Your task to perform on an android device: install app "ColorNote Notepad Notes" Image 0: 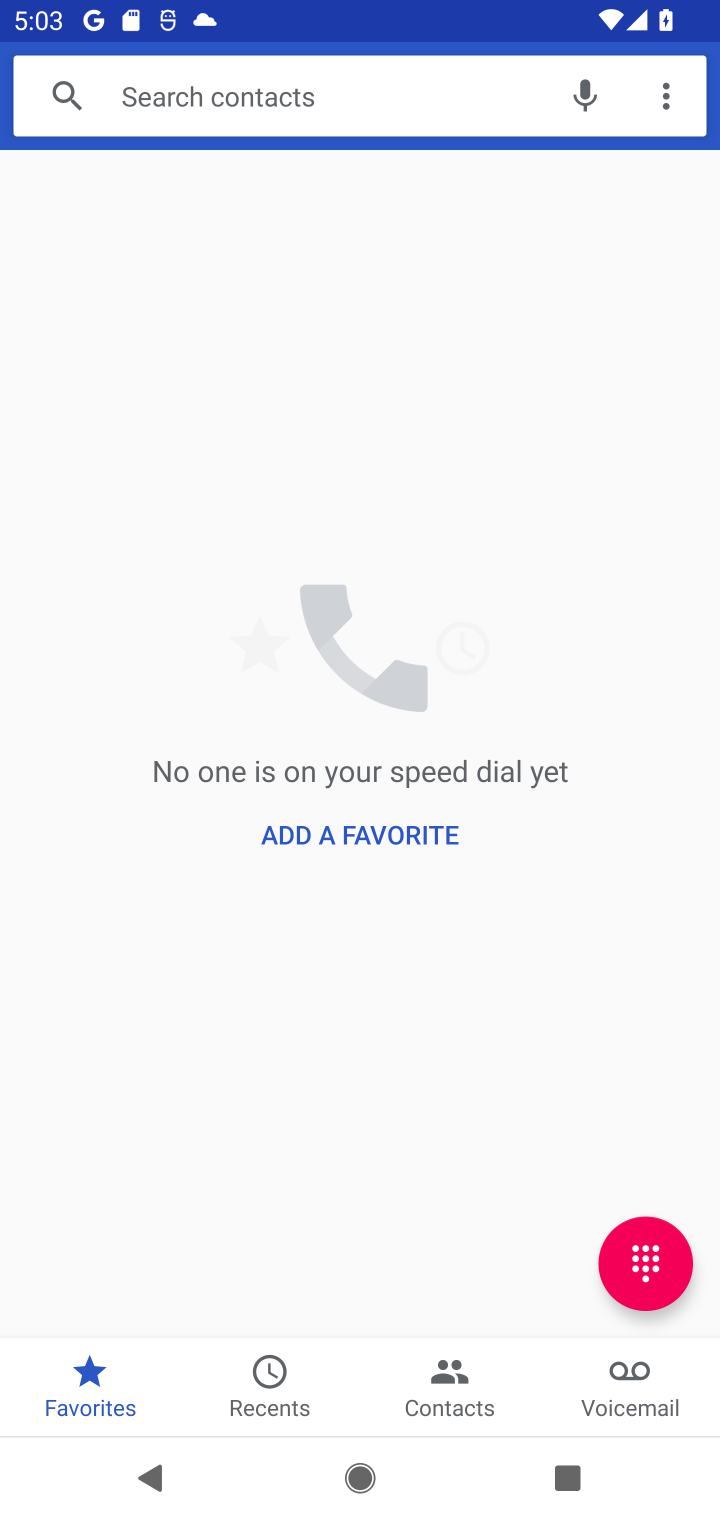
Step 0: press home button
Your task to perform on an android device: install app "ColorNote Notepad Notes" Image 1: 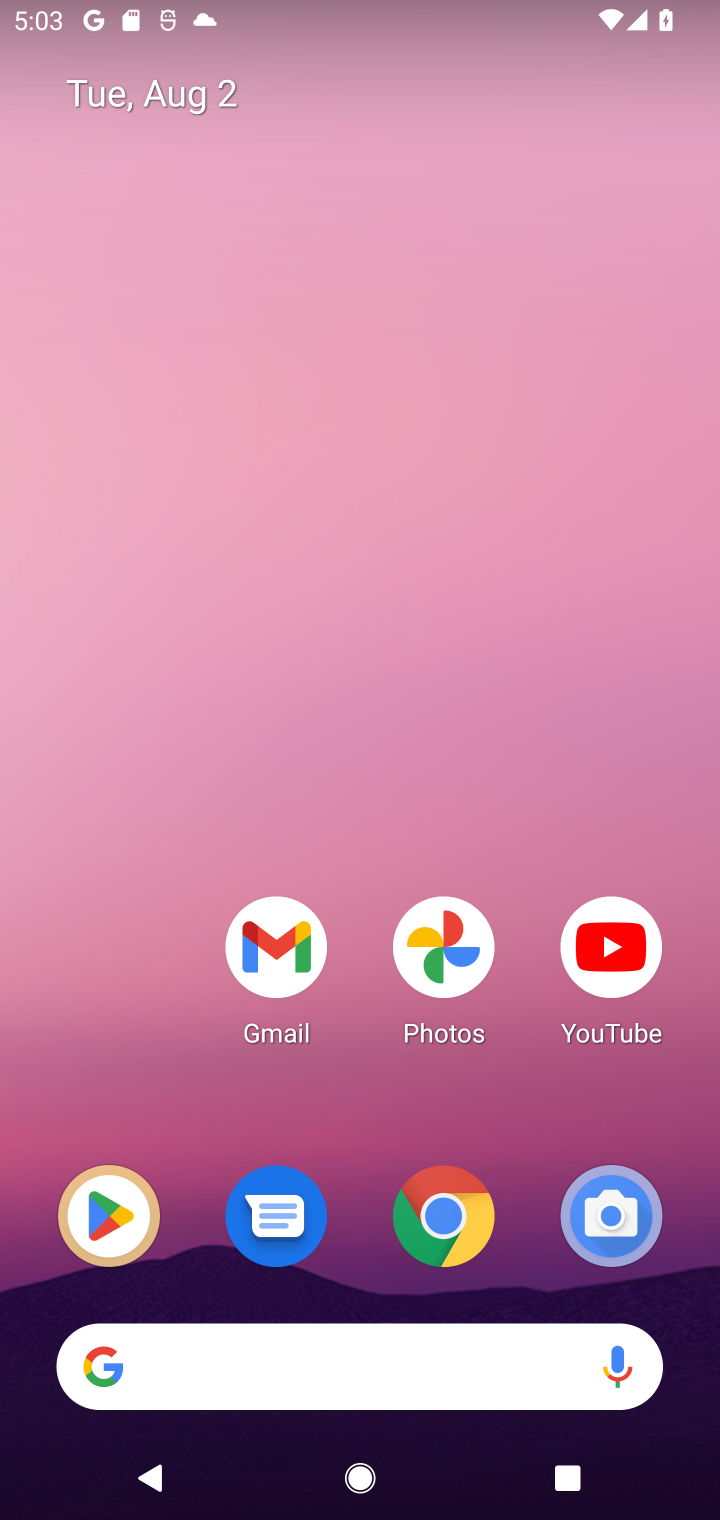
Step 1: click (146, 1227)
Your task to perform on an android device: install app "ColorNote Notepad Notes" Image 2: 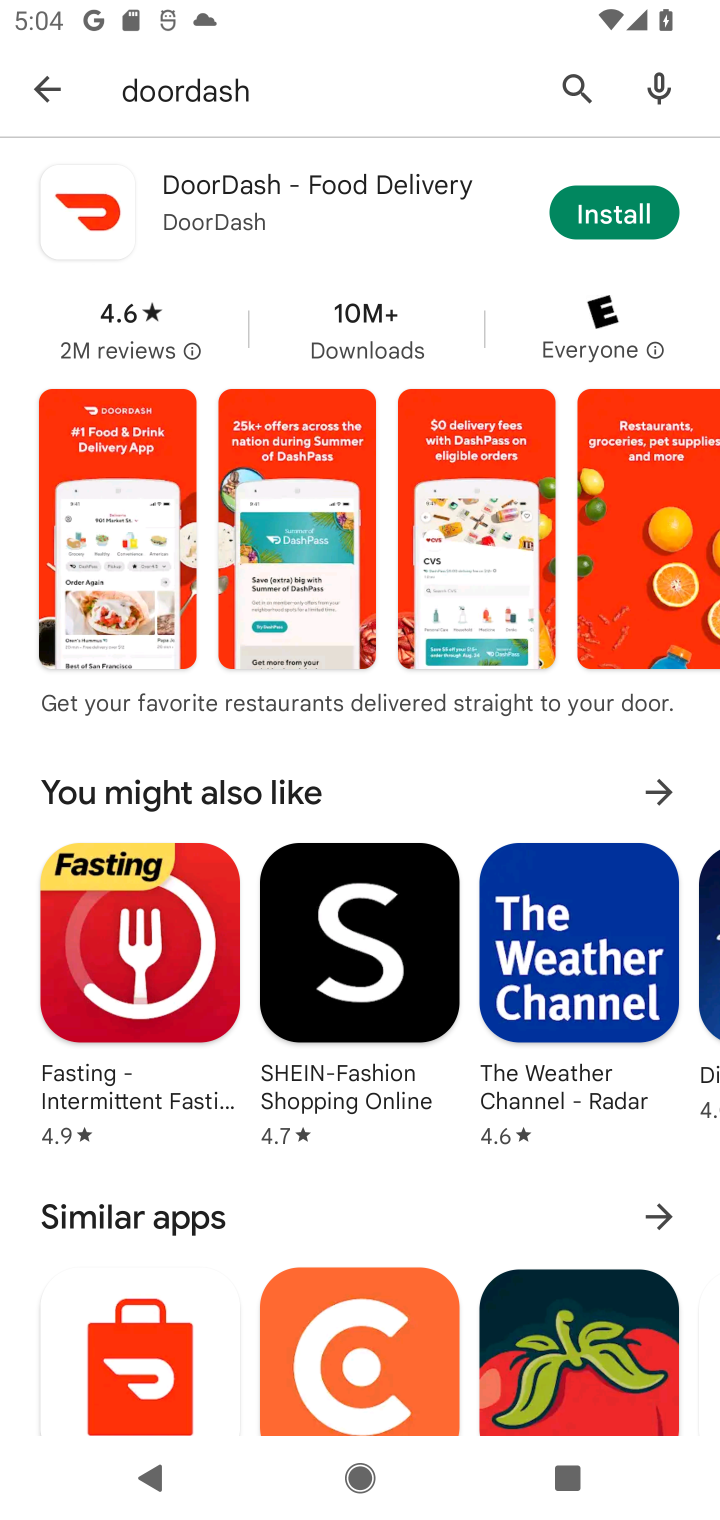
Step 2: click (569, 88)
Your task to perform on an android device: install app "ColorNote Notepad Notes" Image 3: 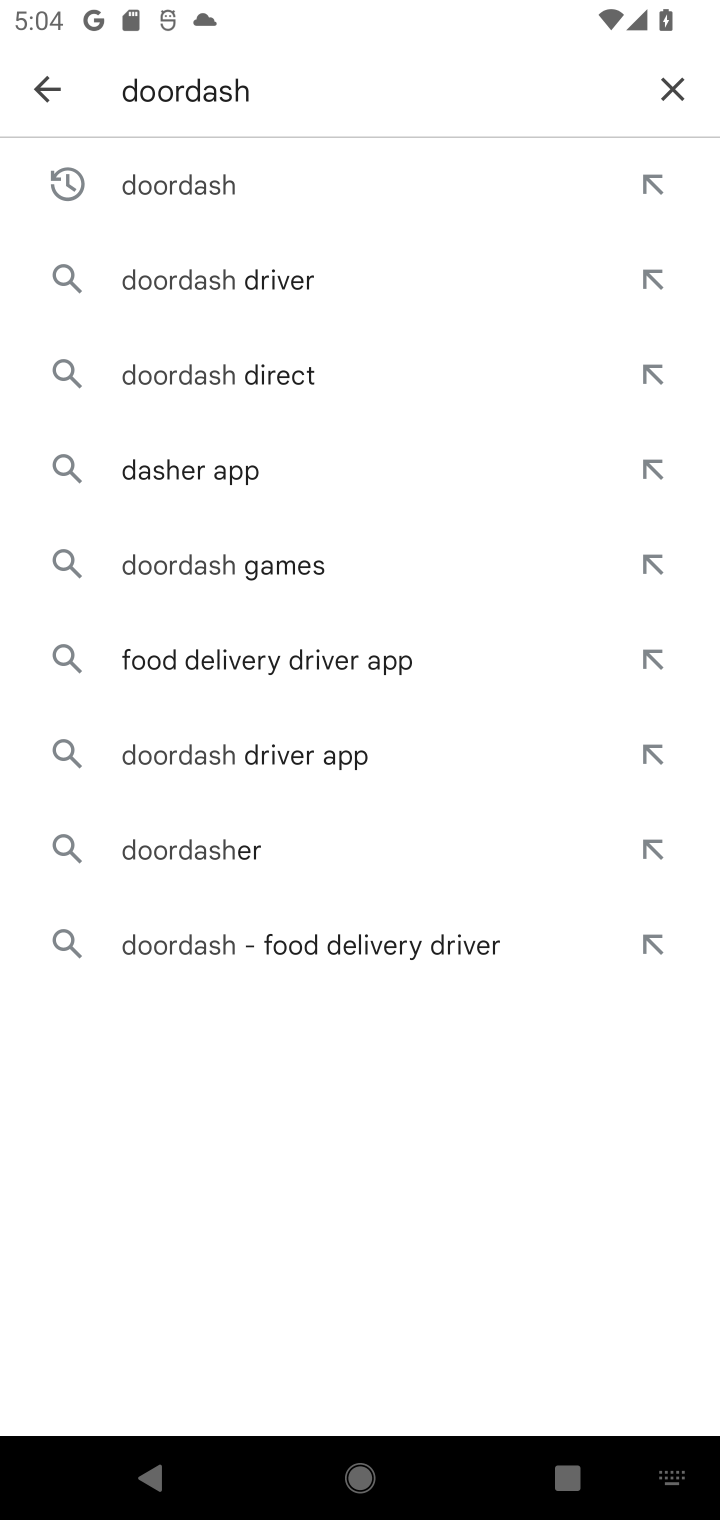
Step 3: click (689, 88)
Your task to perform on an android device: install app "ColorNote Notepad Notes" Image 4: 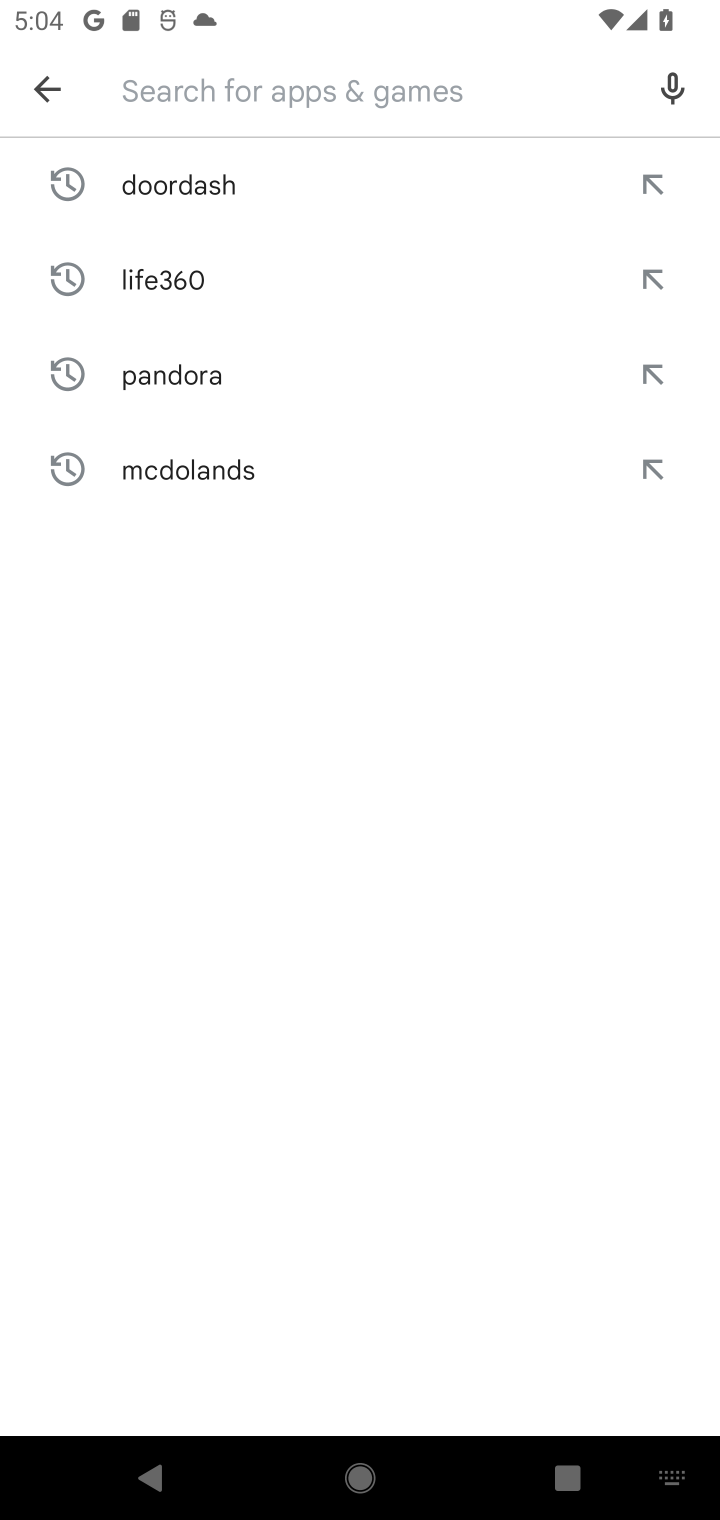
Step 4: type "colonote"
Your task to perform on an android device: install app "ColorNote Notepad Notes" Image 5: 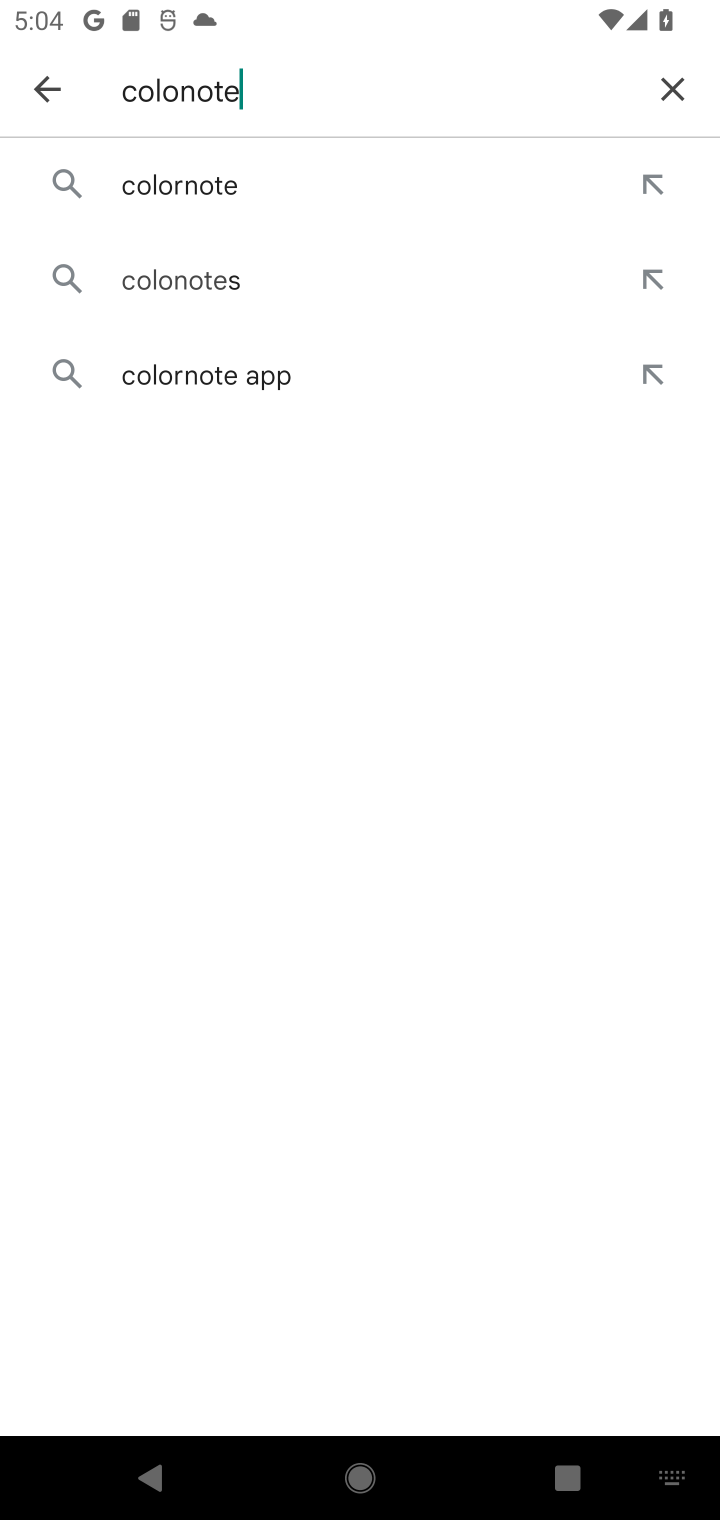
Step 5: click (364, 237)
Your task to perform on an android device: install app "ColorNote Notepad Notes" Image 6: 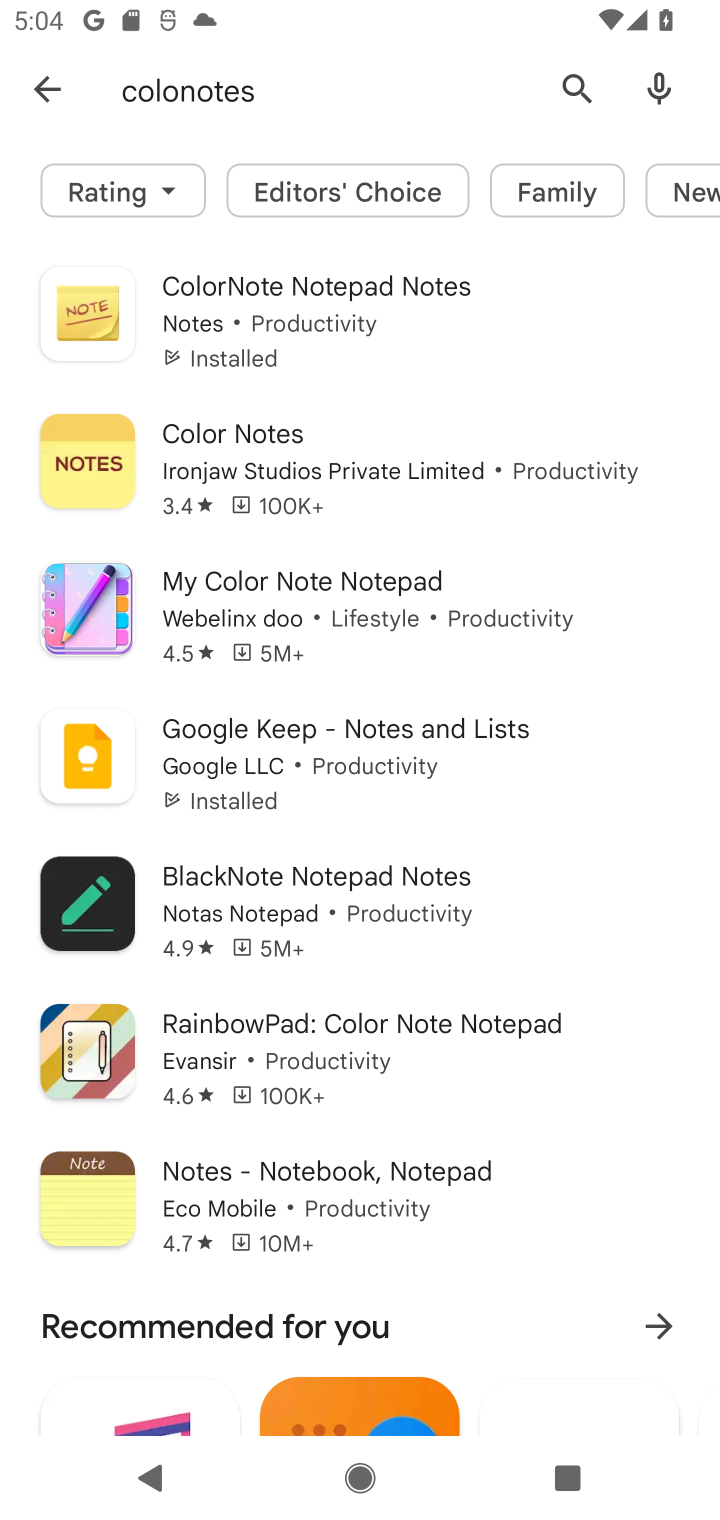
Step 6: click (344, 313)
Your task to perform on an android device: install app "ColorNote Notepad Notes" Image 7: 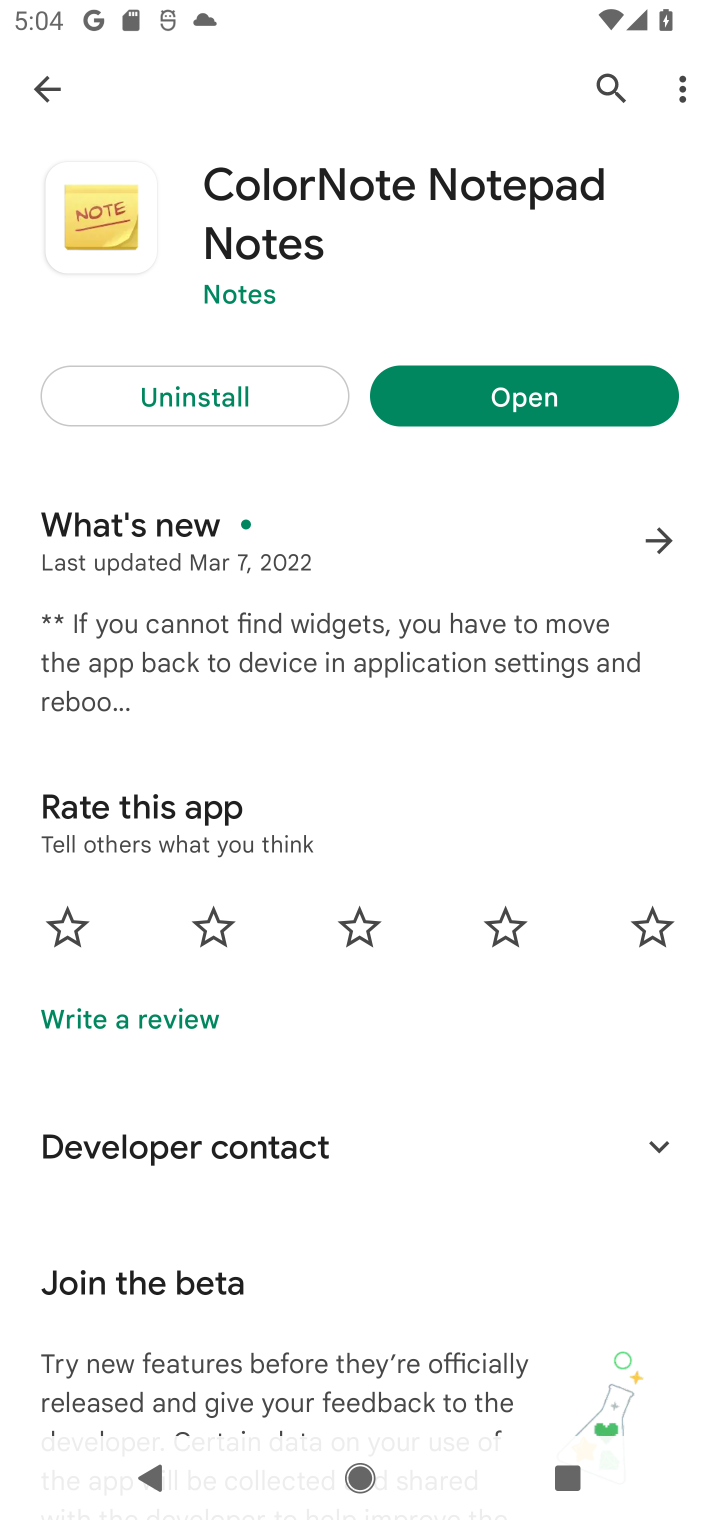
Step 7: task complete